Your task to perform on an android device: turn off picture-in-picture Image 0: 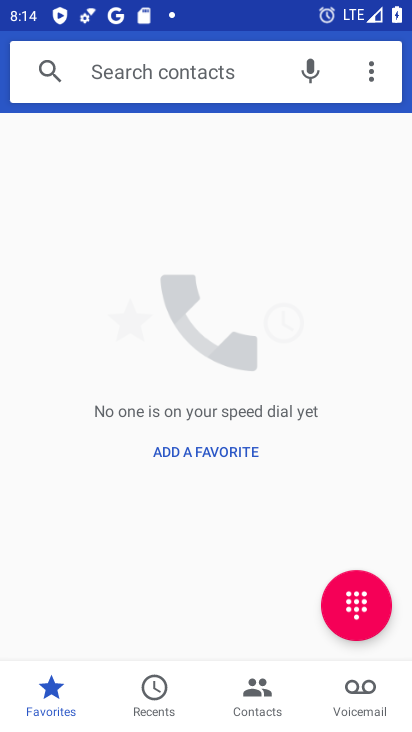
Step 0: press home button
Your task to perform on an android device: turn off picture-in-picture Image 1: 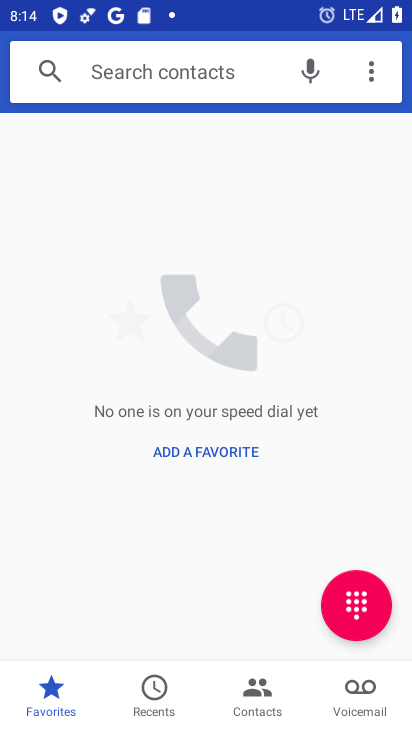
Step 1: press home button
Your task to perform on an android device: turn off picture-in-picture Image 2: 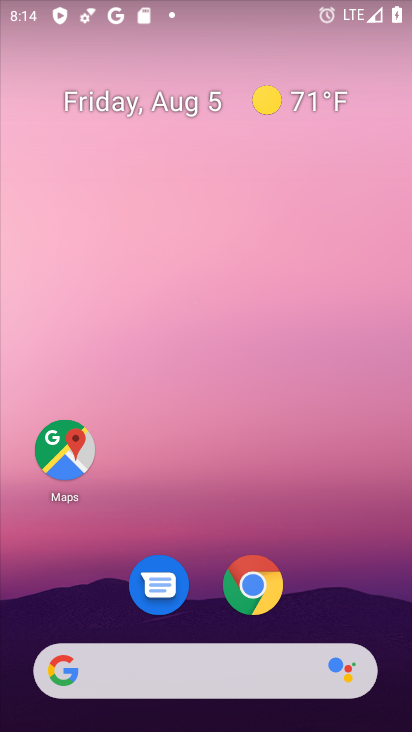
Step 2: click (250, 584)
Your task to perform on an android device: turn off picture-in-picture Image 3: 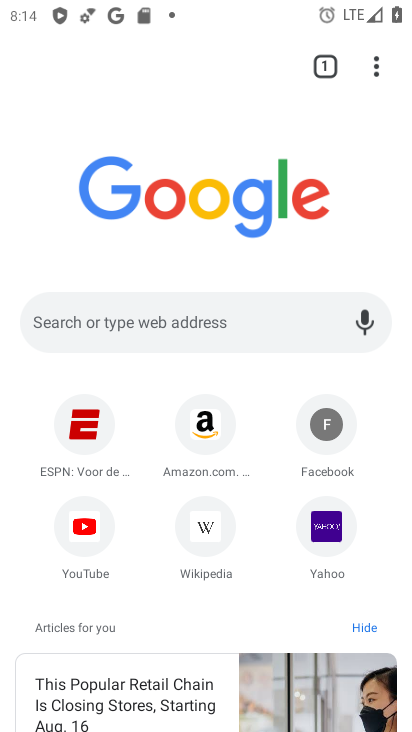
Step 3: press back button
Your task to perform on an android device: turn off picture-in-picture Image 4: 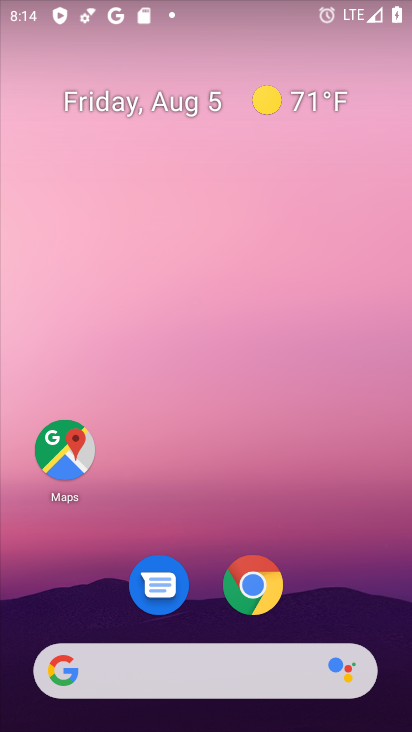
Step 4: click (264, 583)
Your task to perform on an android device: turn off picture-in-picture Image 5: 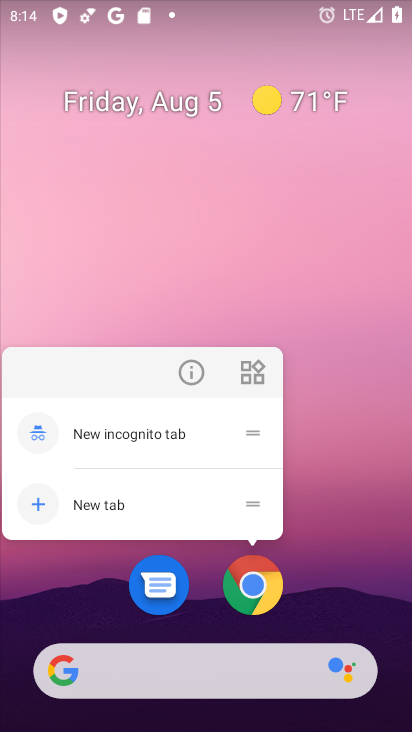
Step 5: click (188, 364)
Your task to perform on an android device: turn off picture-in-picture Image 6: 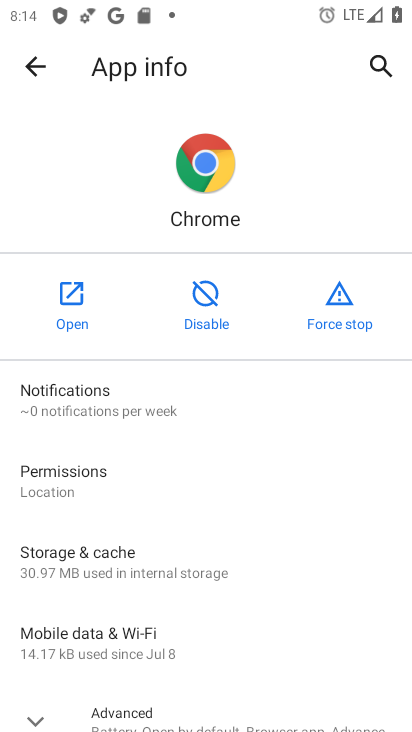
Step 6: click (38, 722)
Your task to perform on an android device: turn off picture-in-picture Image 7: 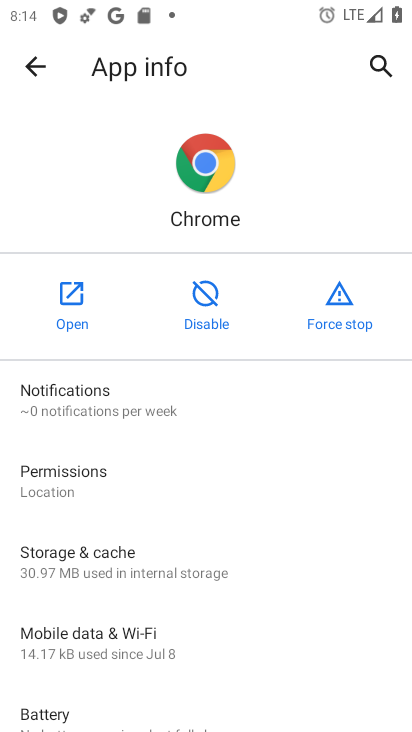
Step 7: drag from (267, 625) to (277, 133)
Your task to perform on an android device: turn off picture-in-picture Image 8: 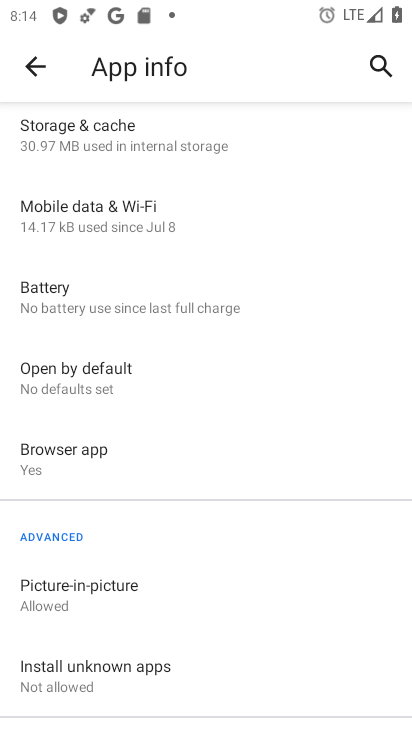
Step 8: drag from (177, 576) to (198, 328)
Your task to perform on an android device: turn off picture-in-picture Image 9: 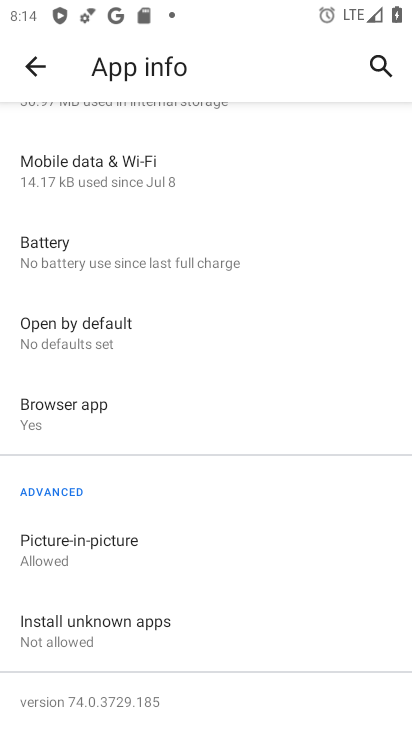
Step 9: click (109, 539)
Your task to perform on an android device: turn off picture-in-picture Image 10: 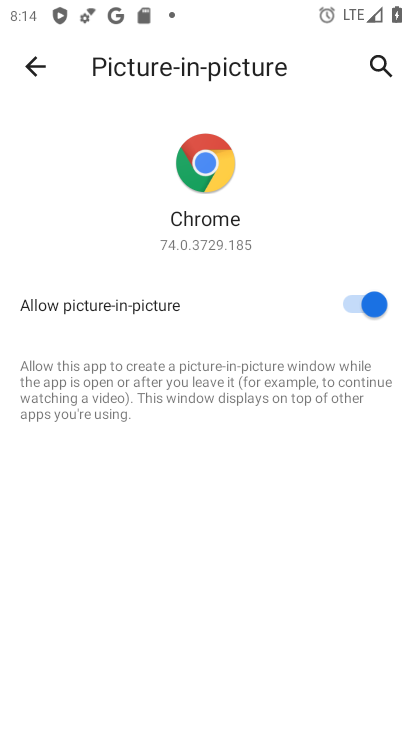
Step 10: click (350, 301)
Your task to perform on an android device: turn off picture-in-picture Image 11: 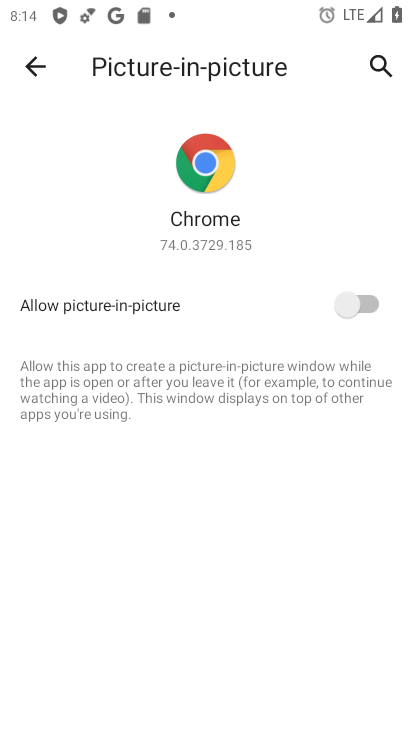
Step 11: task complete